Your task to perform on an android device: Show me recent news Image 0: 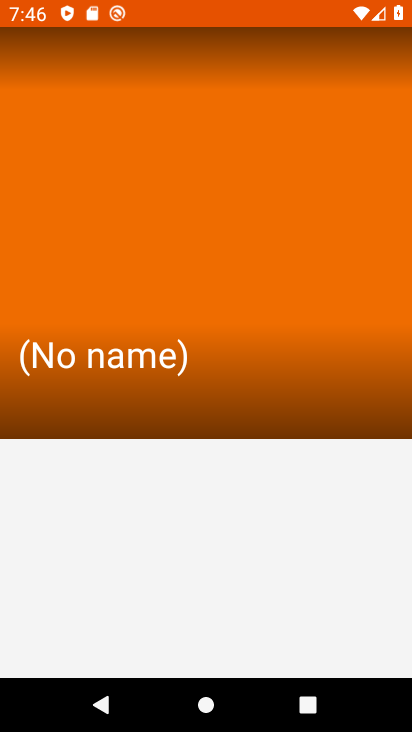
Step 0: drag from (52, 346) to (370, 490)
Your task to perform on an android device: Show me recent news Image 1: 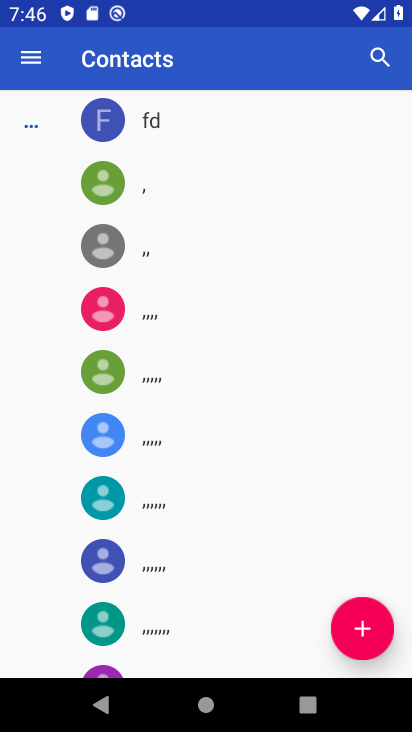
Step 1: press home button
Your task to perform on an android device: Show me recent news Image 2: 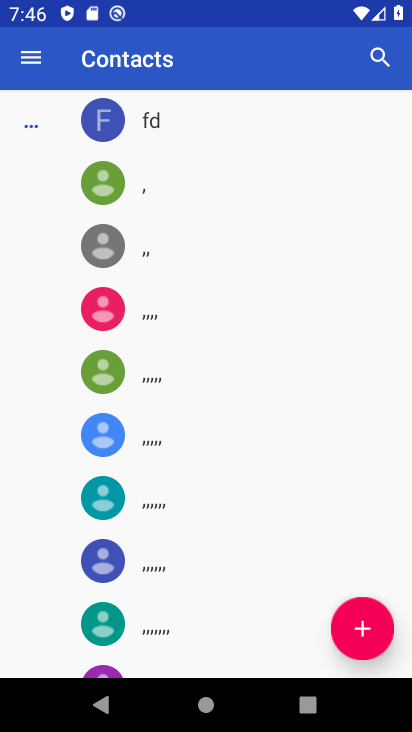
Step 2: drag from (370, 490) to (345, 450)
Your task to perform on an android device: Show me recent news Image 3: 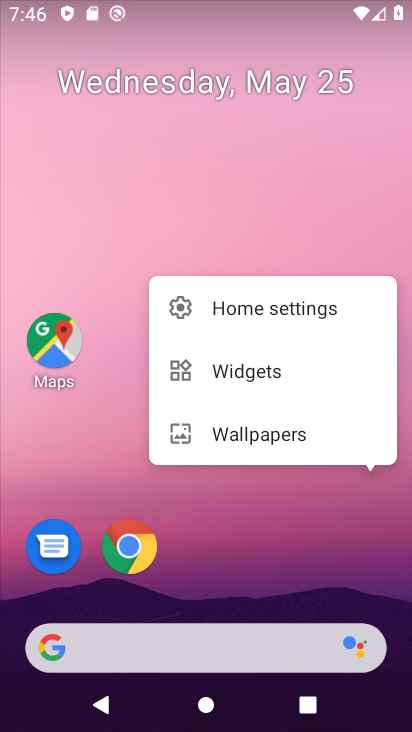
Step 3: click (169, 645)
Your task to perform on an android device: Show me recent news Image 4: 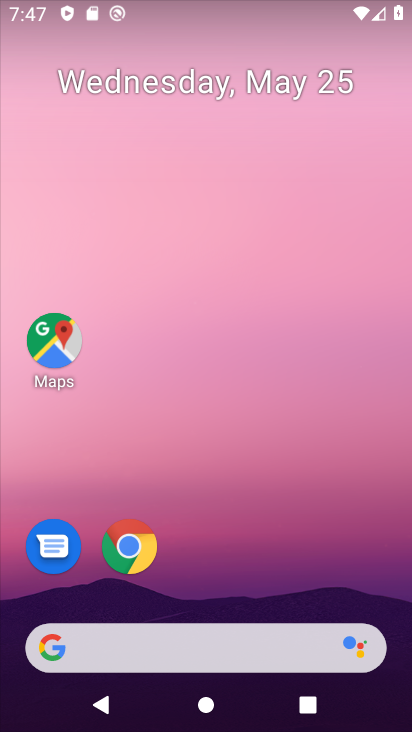
Step 4: click (185, 641)
Your task to perform on an android device: Show me recent news Image 5: 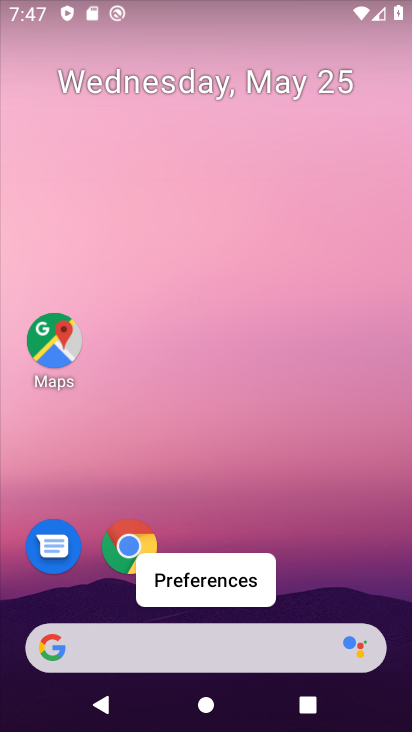
Step 5: click (162, 657)
Your task to perform on an android device: Show me recent news Image 6: 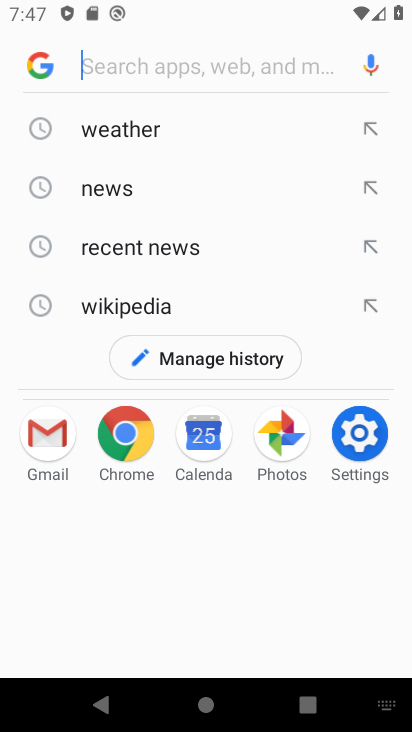
Step 6: click (170, 247)
Your task to perform on an android device: Show me recent news Image 7: 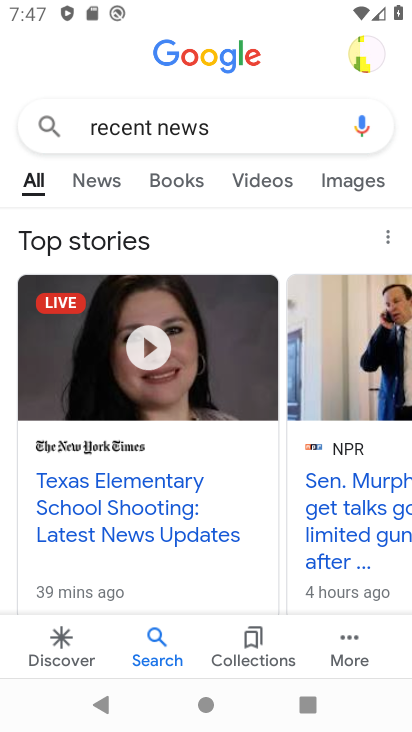
Step 7: task complete